Your task to perform on an android device: turn on bluetooth scan Image 0: 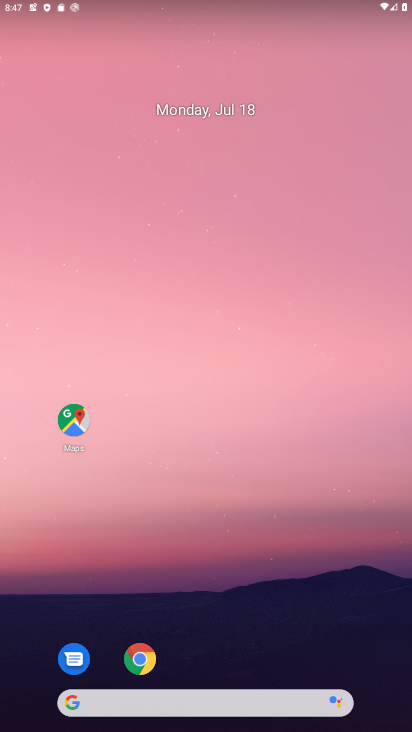
Step 0: drag from (231, 633) to (259, 11)
Your task to perform on an android device: turn on bluetooth scan Image 1: 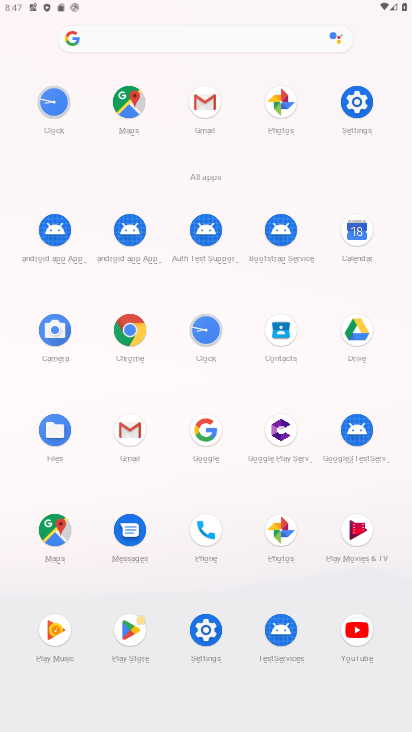
Step 1: click (361, 98)
Your task to perform on an android device: turn on bluetooth scan Image 2: 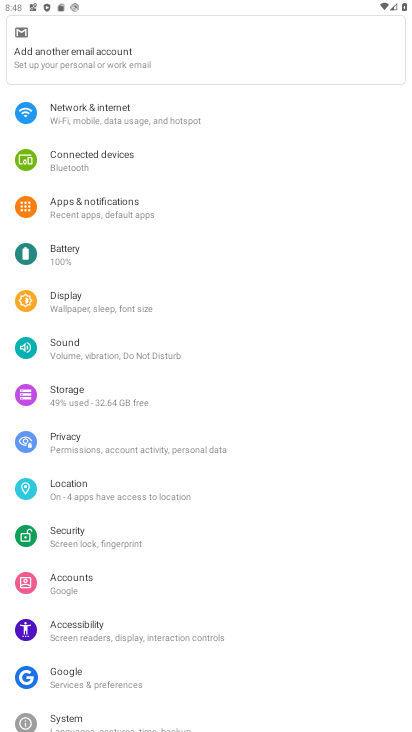
Step 2: click (79, 494)
Your task to perform on an android device: turn on bluetooth scan Image 3: 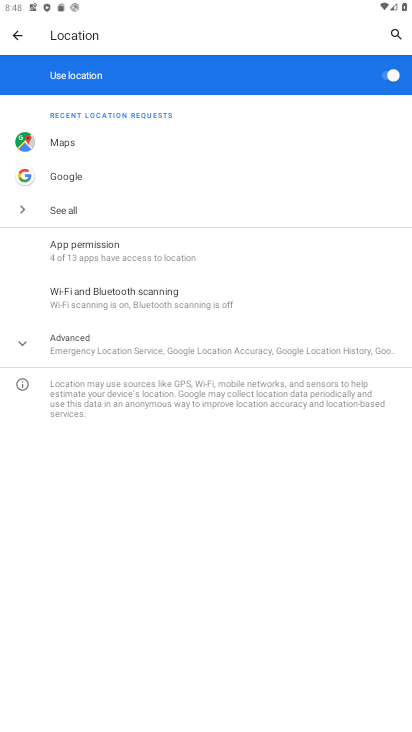
Step 3: click (183, 302)
Your task to perform on an android device: turn on bluetooth scan Image 4: 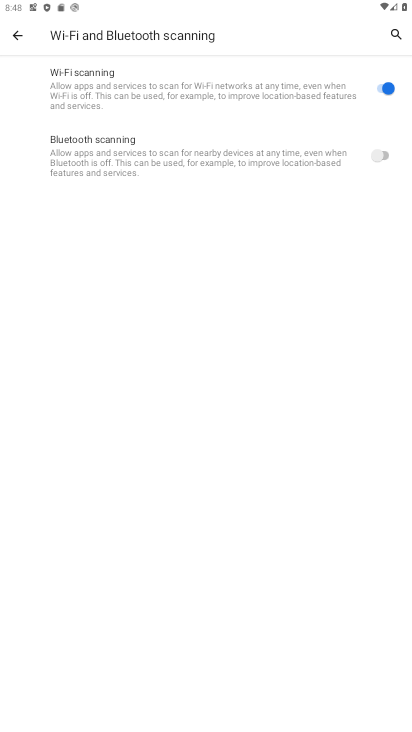
Step 4: click (385, 161)
Your task to perform on an android device: turn on bluetooth scan Image 5: 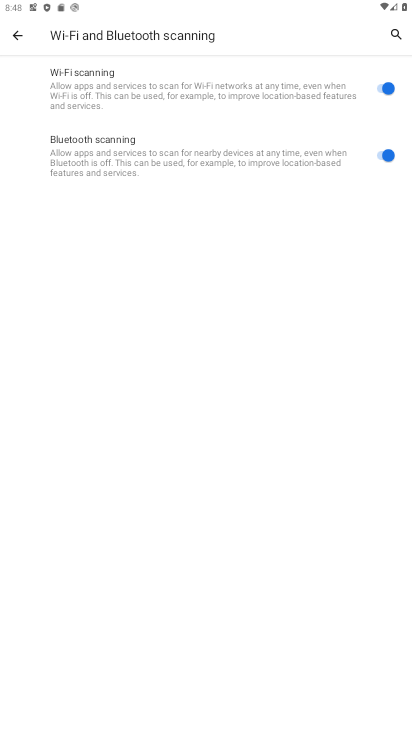
Step 5: task complete